Your task to perform on an android device: Search for pizza restaurants on Maps Image 0: 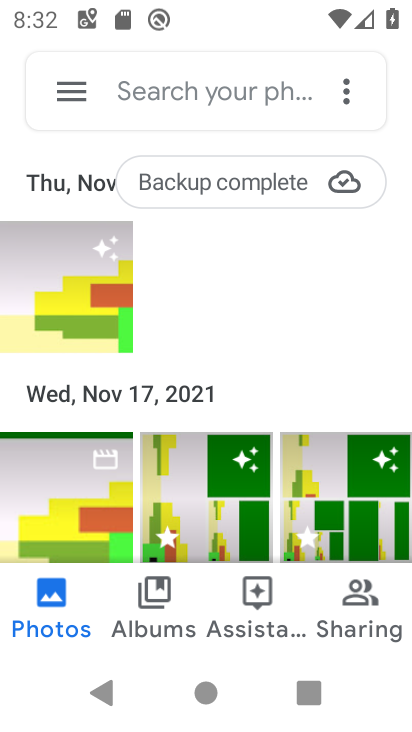
Step 0: press home button
Your task to perform on an android device: Search for pizza restaurants on Maps Image 1: 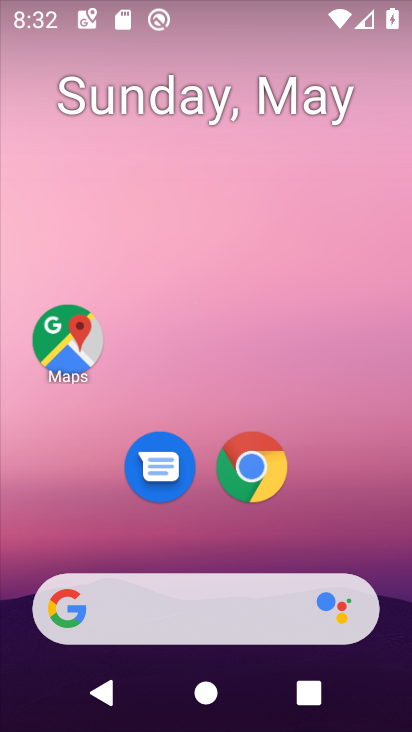
Step 1: drag from (341, 503) to (334, 214)
Your task to perform on an android device: Search for pizza restaurants on Maps Image 2: 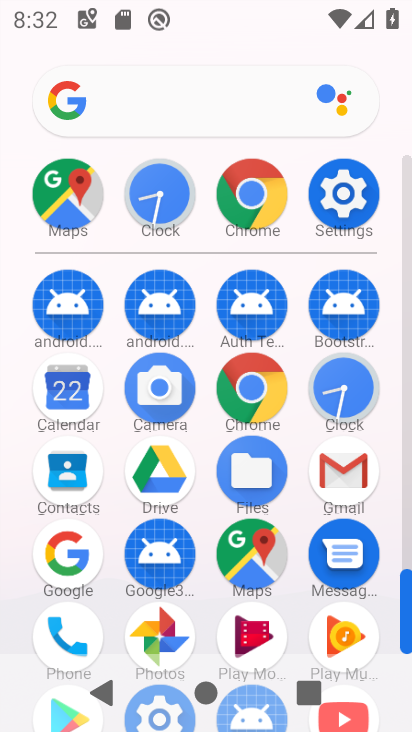
Step 2: click (239, 561)
Your task to perform on an android device: Search for pizza restaurants on Maps Image 3: 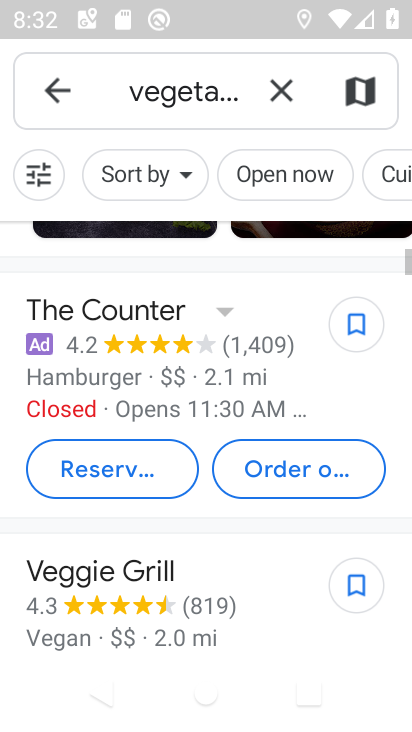
Step 3: click (294, 96)
Your task to perform on an android device: Search for pizza restaurants on Maps Image 4: 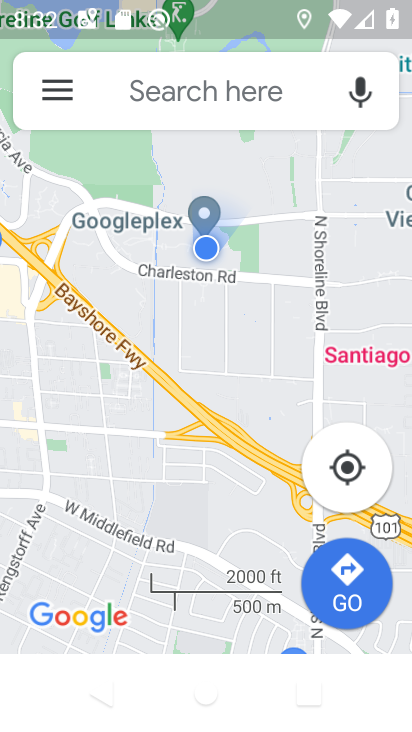
Step 4: click (259, 94)
Your task to perform on an android device: Search for pizza restaurants on Maps Image 5: 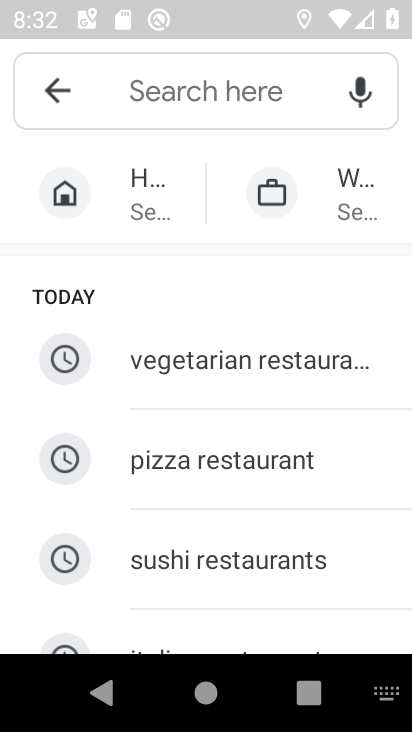
Step 5: click (275, 462)
Your task to perform on an android device: Search for pizza restaurants on Maps Image 6: 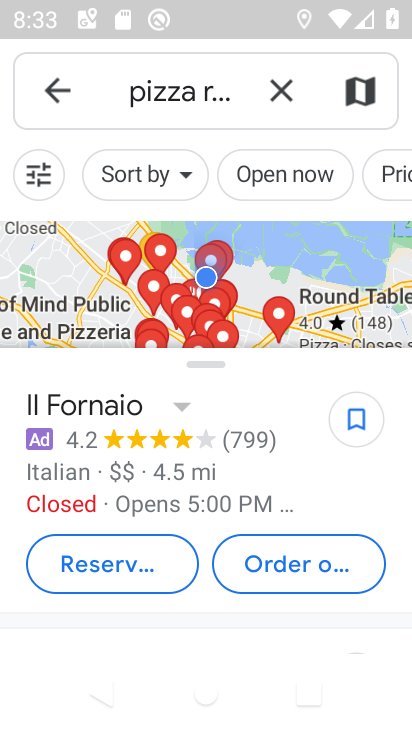
Step 6: task complete